Your task to perform on an android device: Go to Google Image 0: 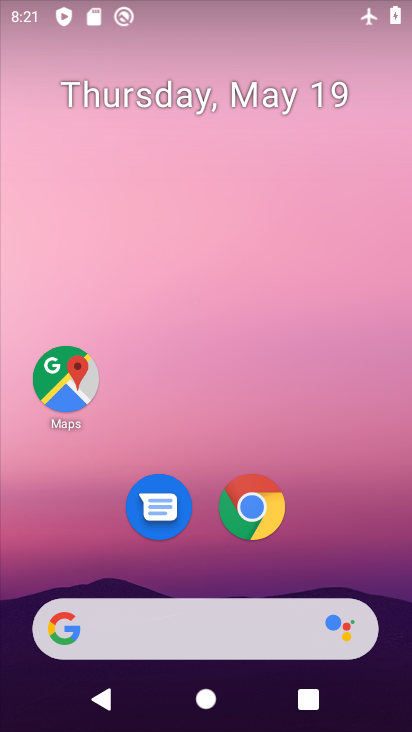
Step 0: drag from (218, 723) to (187, 320)
Your task to perform on an android device: Go to Google Image 1: 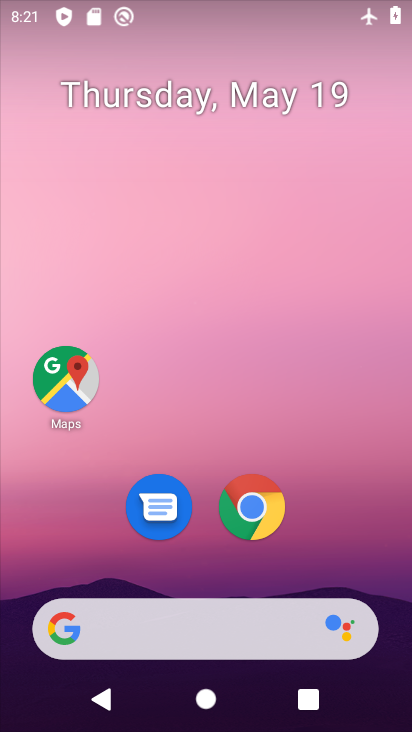
Step 1: drag from (224, 725) to (233, 184)
Your task to perform on an android device: Go to Google Image 2: 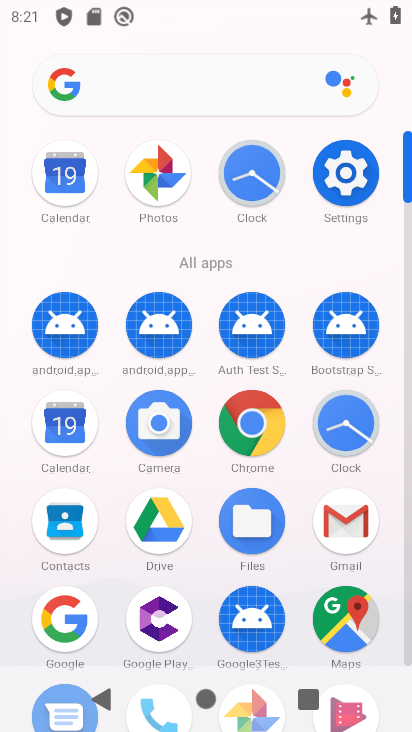
Step 2: click (64, 623)
Your task to perform on an android device: Go to Google Image 3: 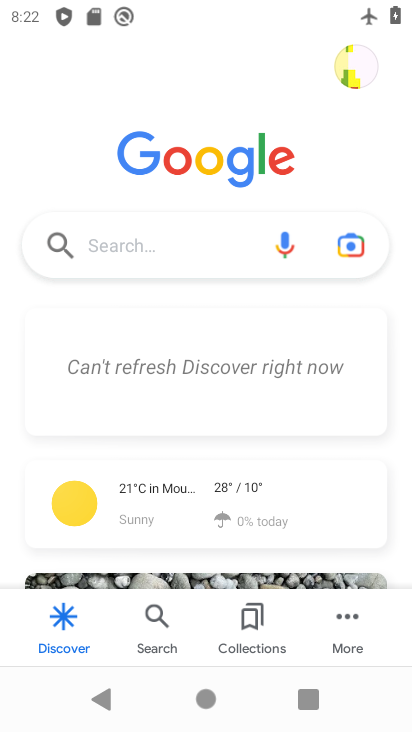
Step 3: task complete